Your task to perform on an android device: Open Yahoo.com Image 0: 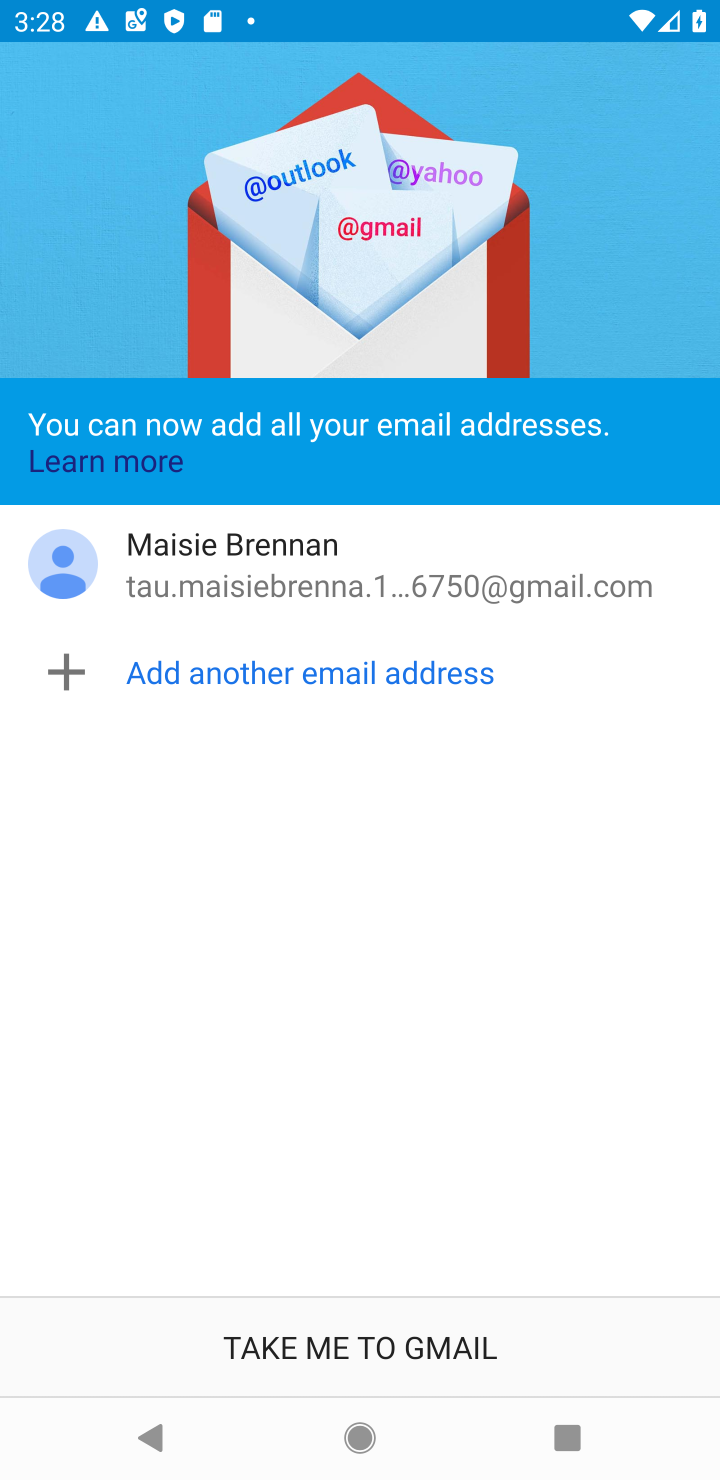
Step 0: press home button
Your task to perform on an android device: Open Yahoo.com Image 1: 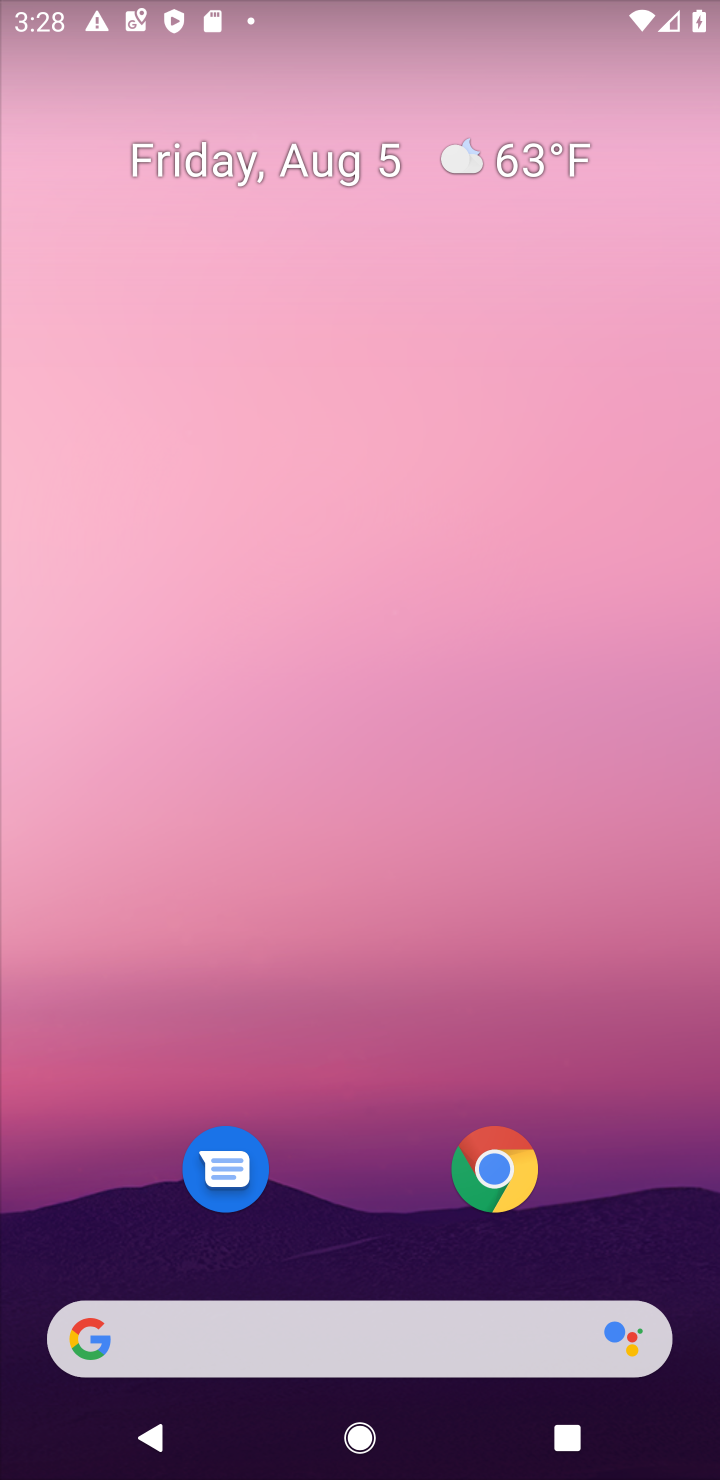
Step 1: drag from (709, 1394) to (601, 11)
Your task to perform on an android device: Open Yahoo.com Image 2: 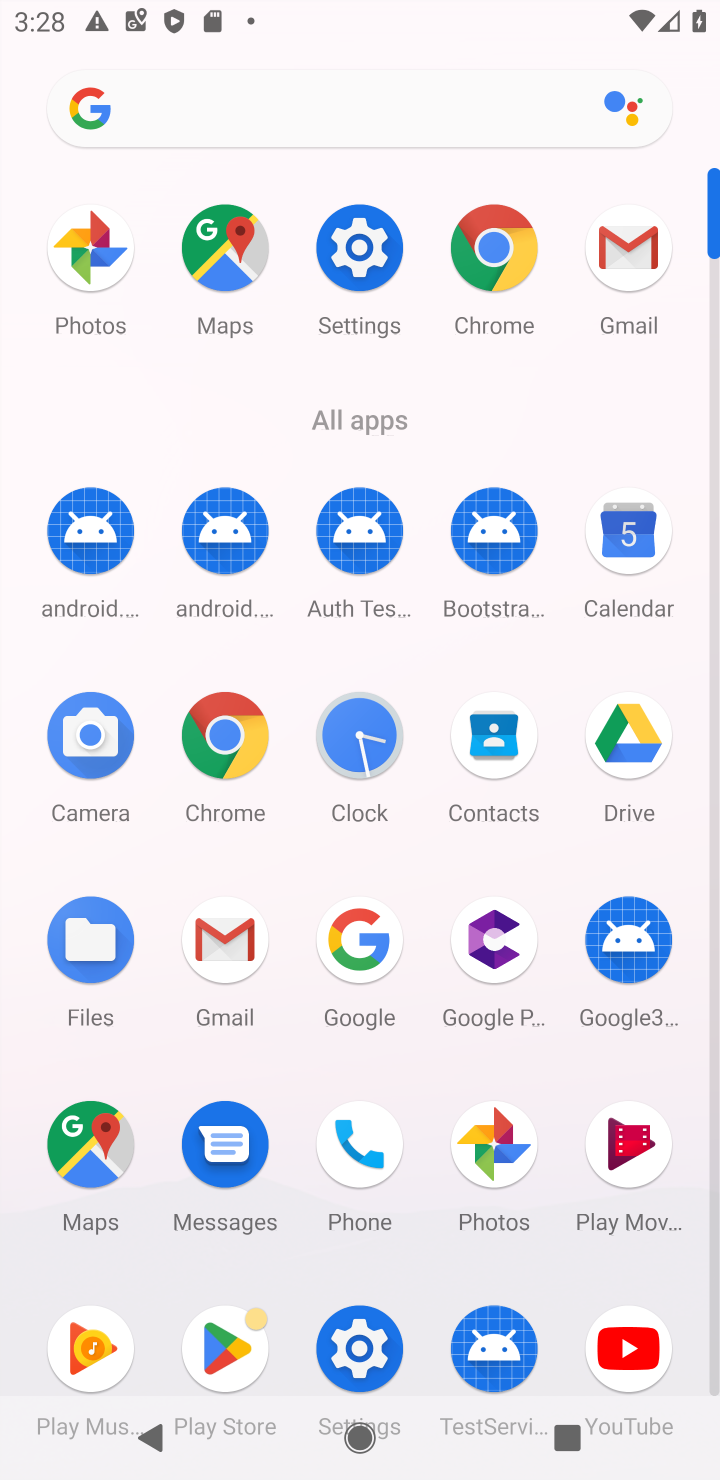
Step 2: click (493, 256)
Your task to perform on an android device: Open Yahoo.com Image 3: 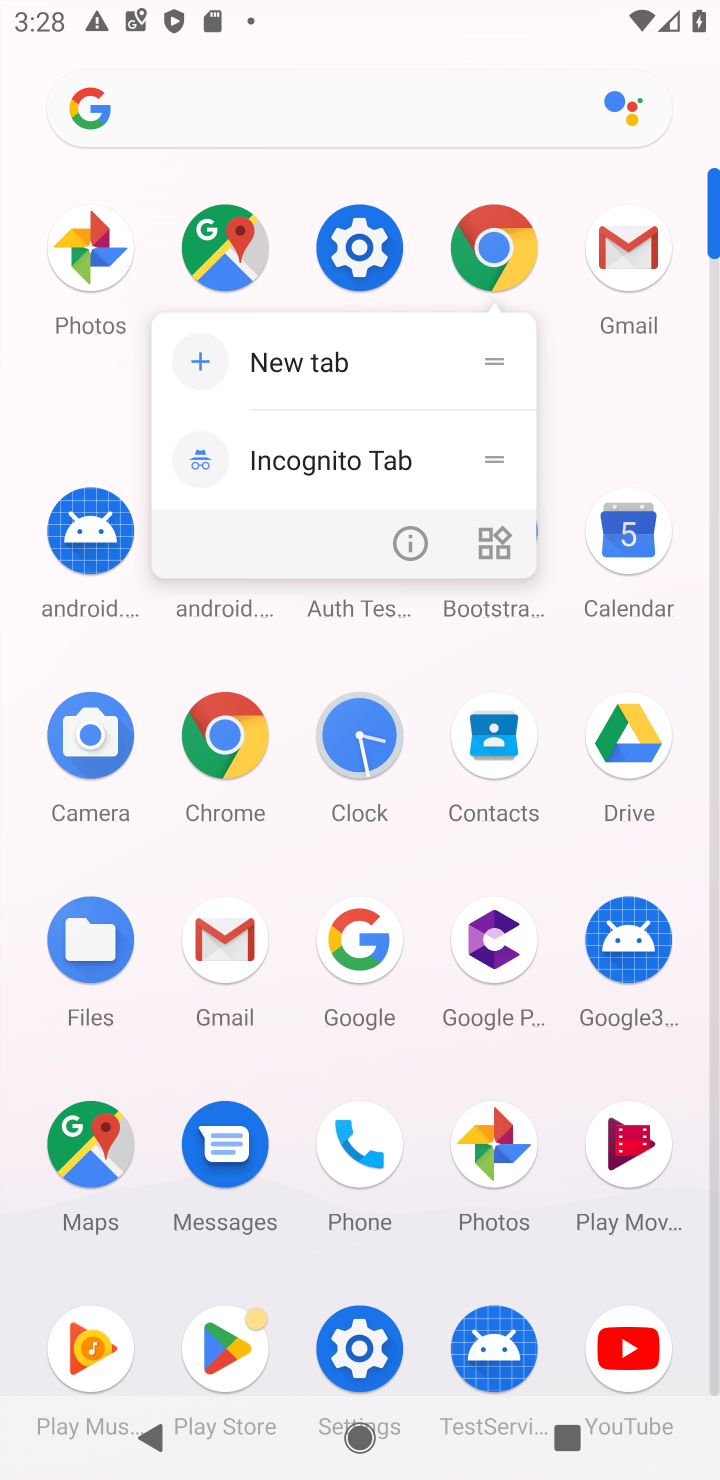
Step 3: click (493, 252)
Your task to perform on an android device: Open Yahoo.com Image 4: 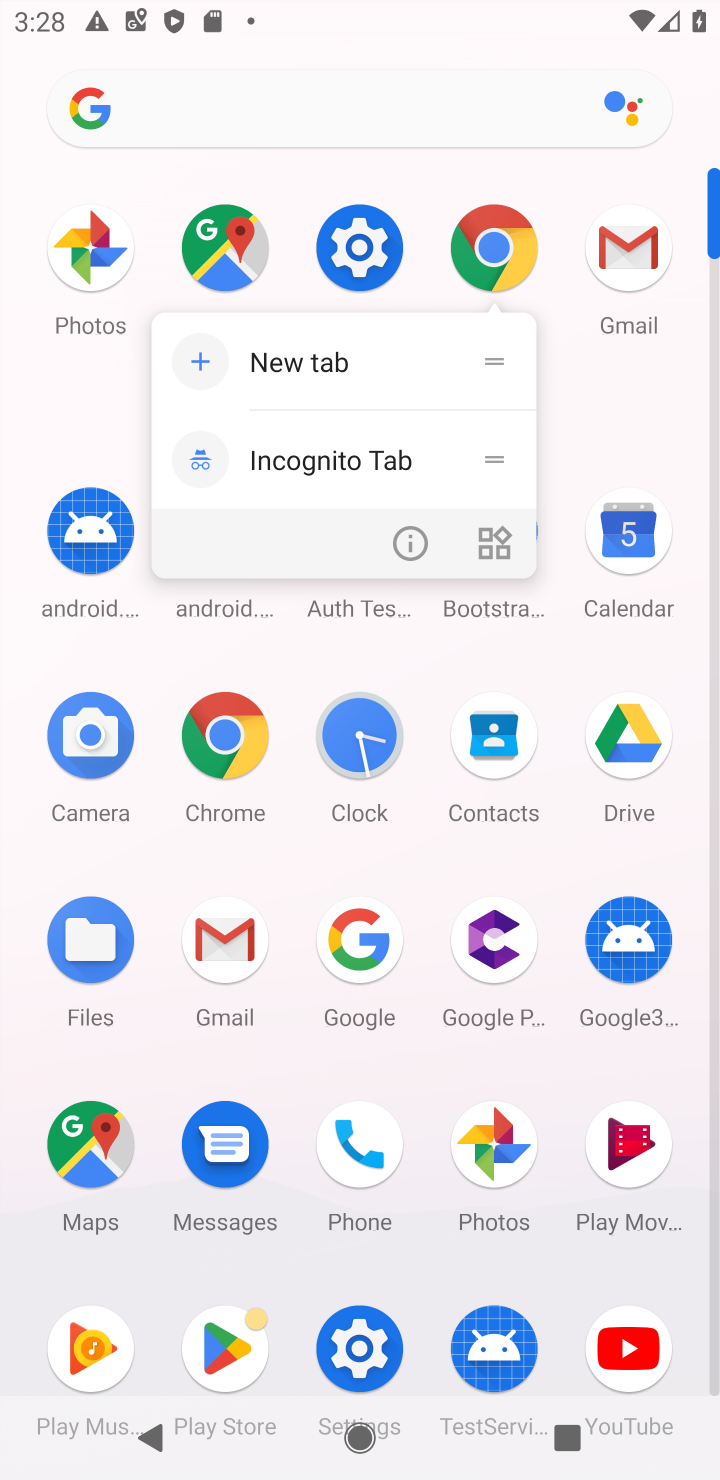
Step 4: click (495, 247)
Your task to perform on an android device: Open Yahoo.com Image 5: 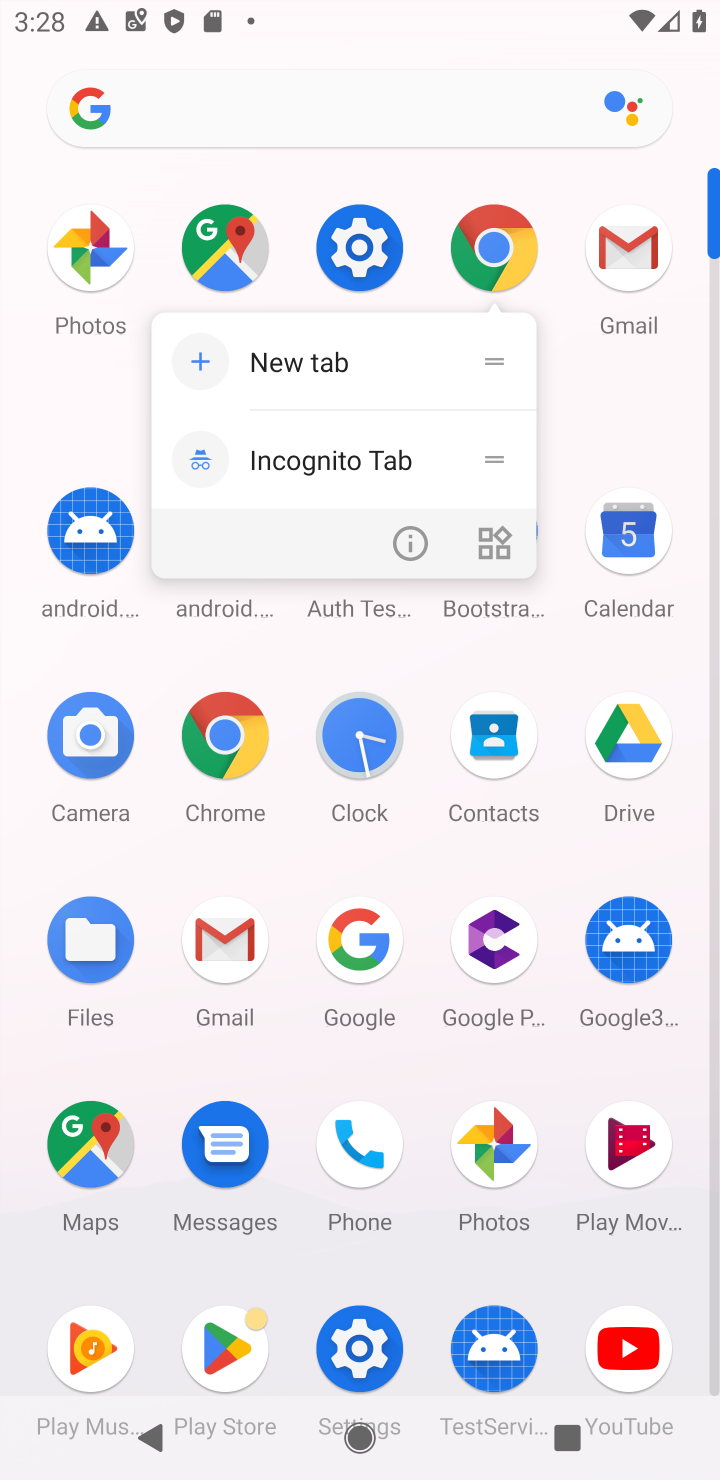
Step 5: click (495, 249)
Your task to perform on an android device: Open Yahoo.com Image 6: 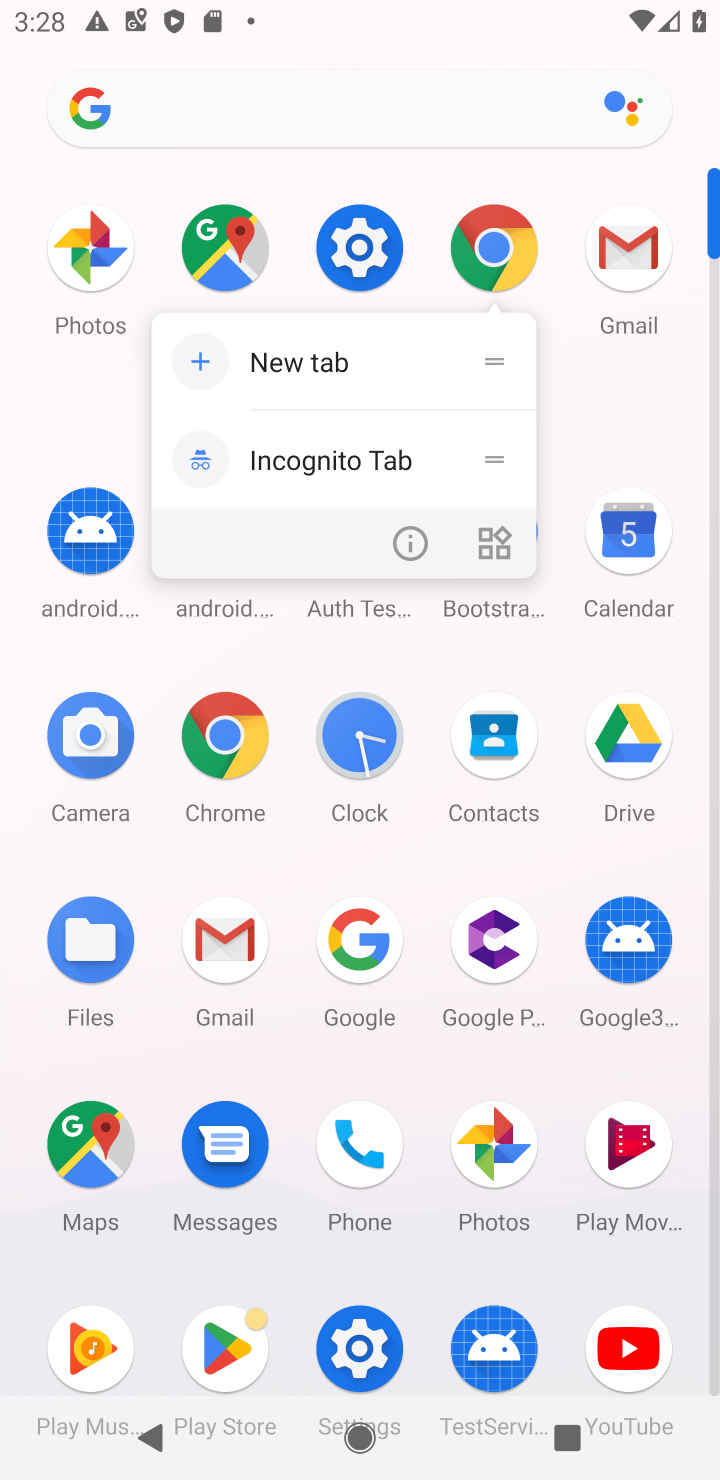
Step 6: click (489, 246)
Your task to perform on an android device: Open Yahoo.com Image 7: 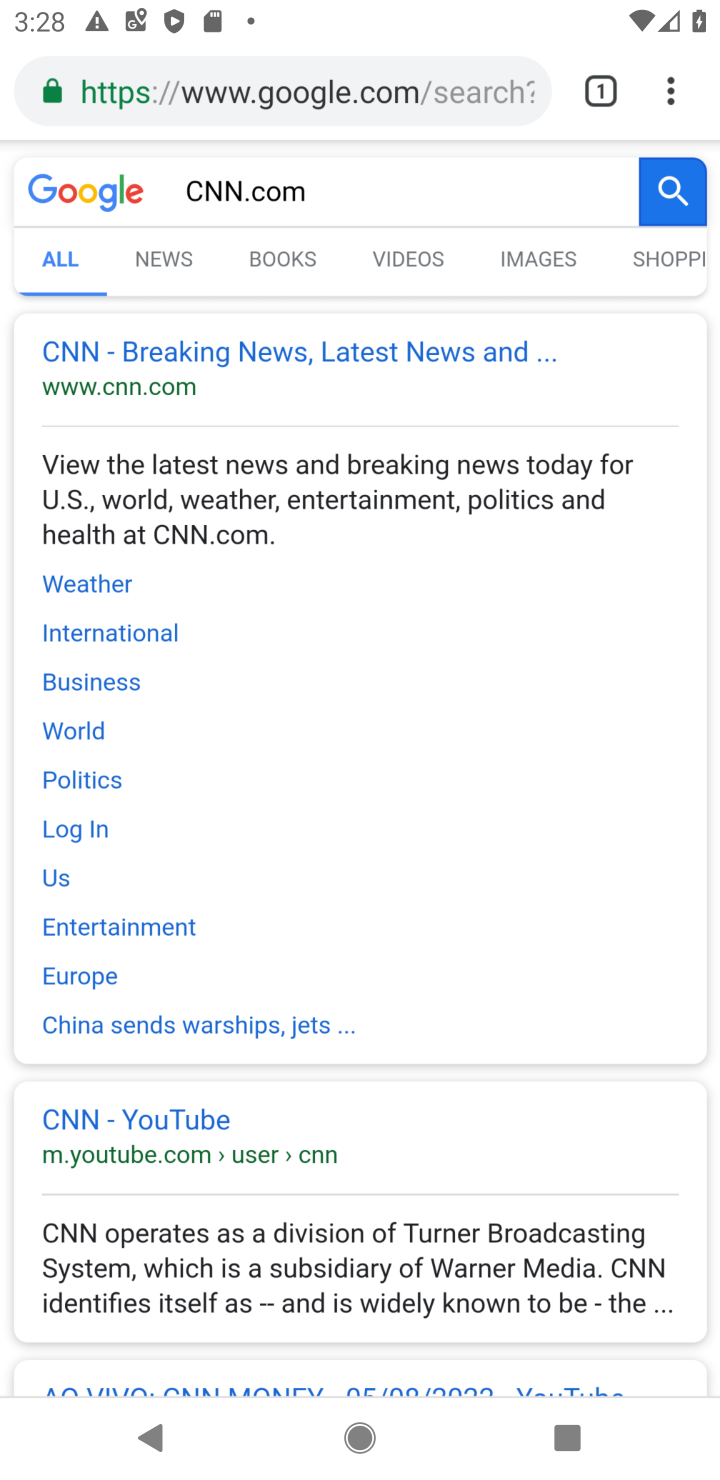
Step 7: click (502, 244)
Your task to perform on an android device: Open Yahoo.com Image 8: 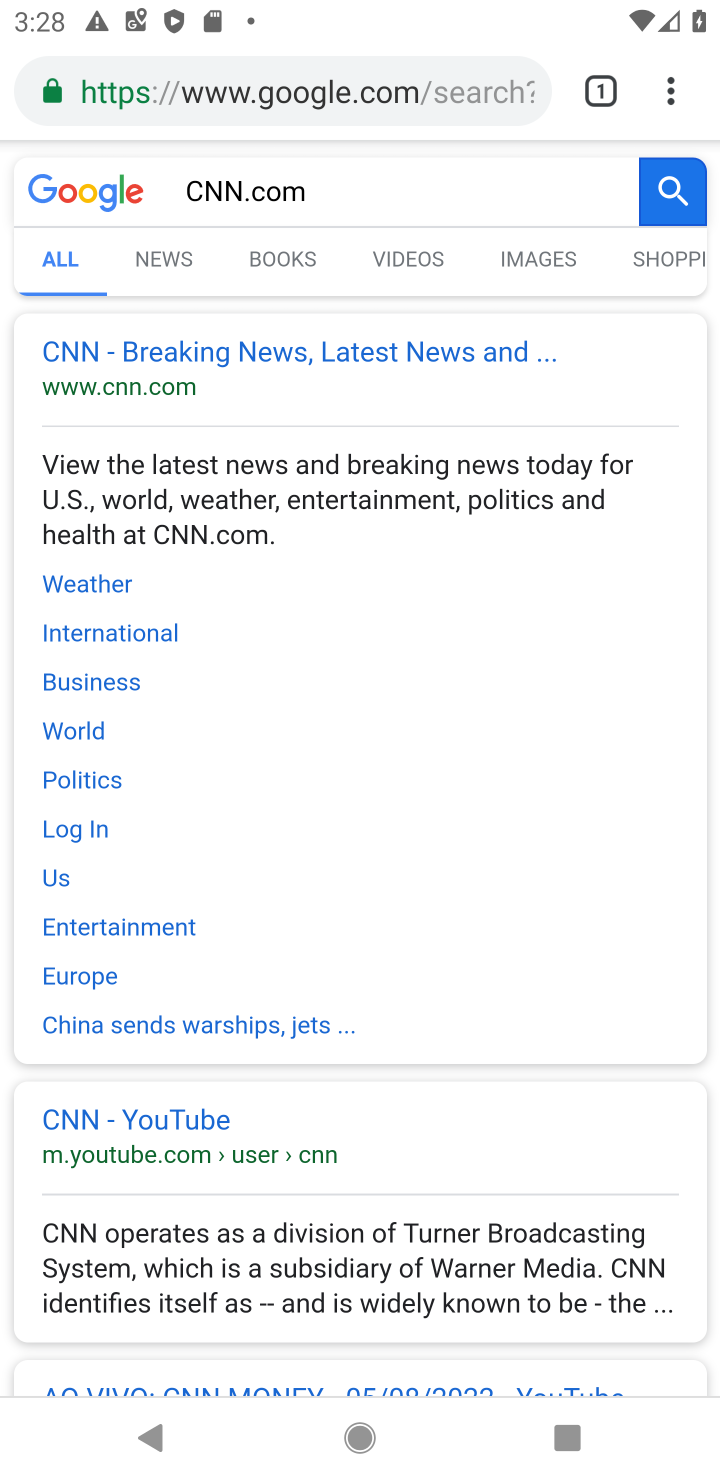
Step 8: click (417, 84)
Your task to perform on an android device: Open Yahoo.com Image 9: 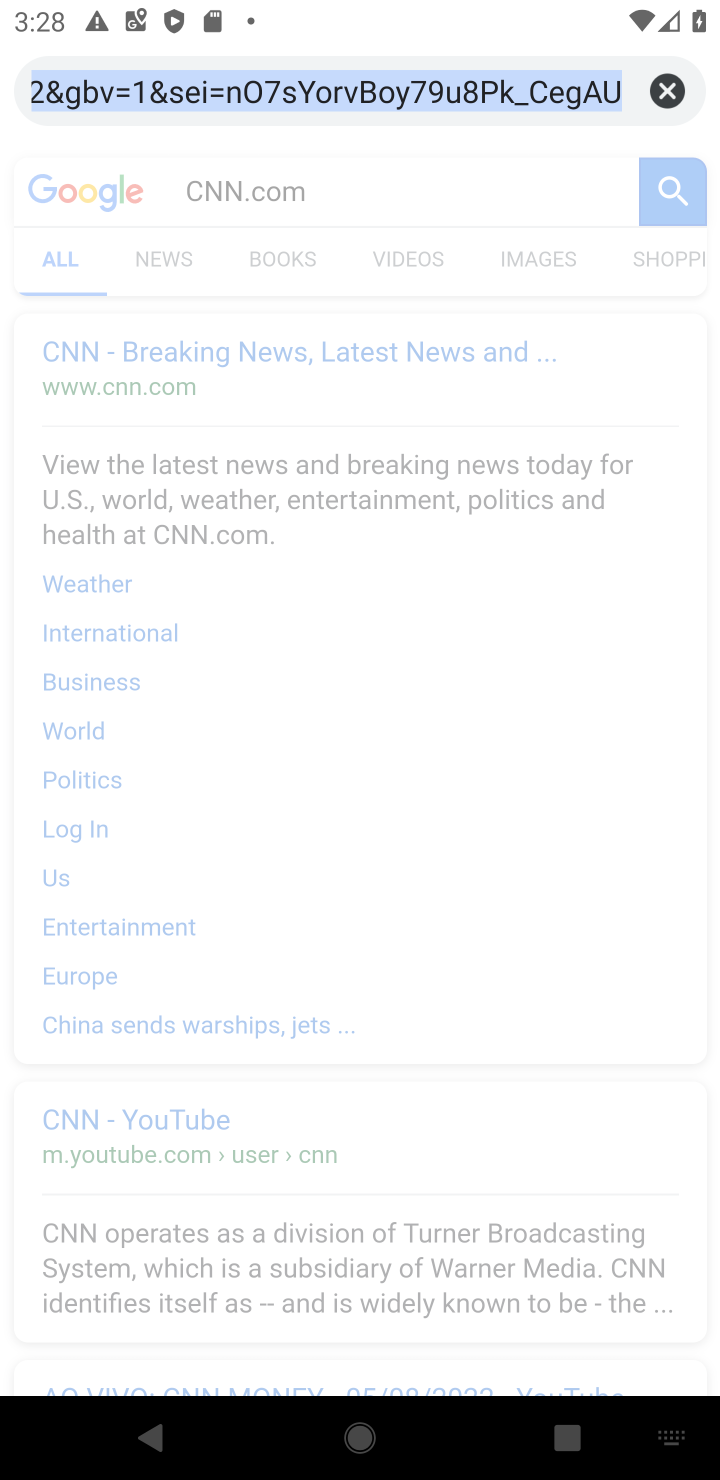
Step 9: click (651, 87)
Your task to perform on an android device: Open Yahoo.com Image 10: 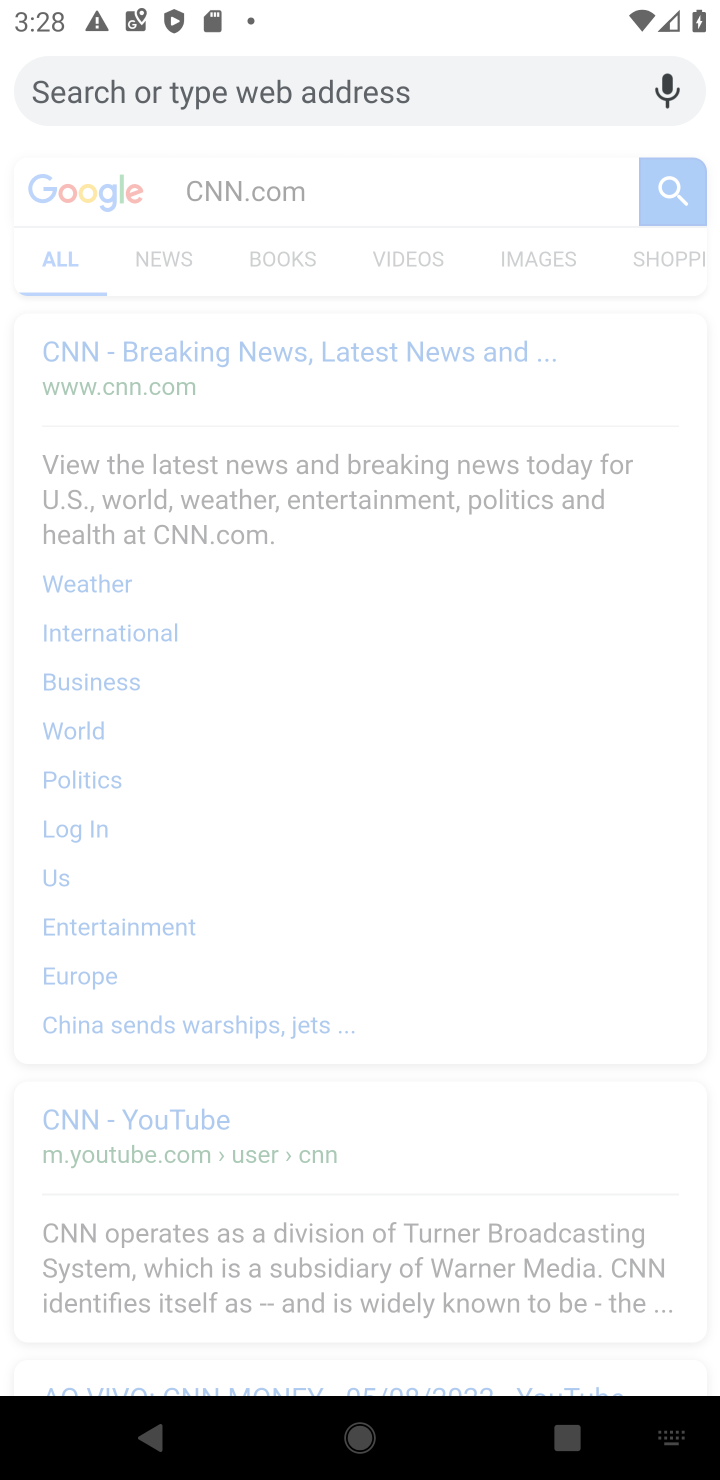
Step 10: type "Yahoo.com"
Your task to perform on an android device: Open Yahoo.com Image 11: 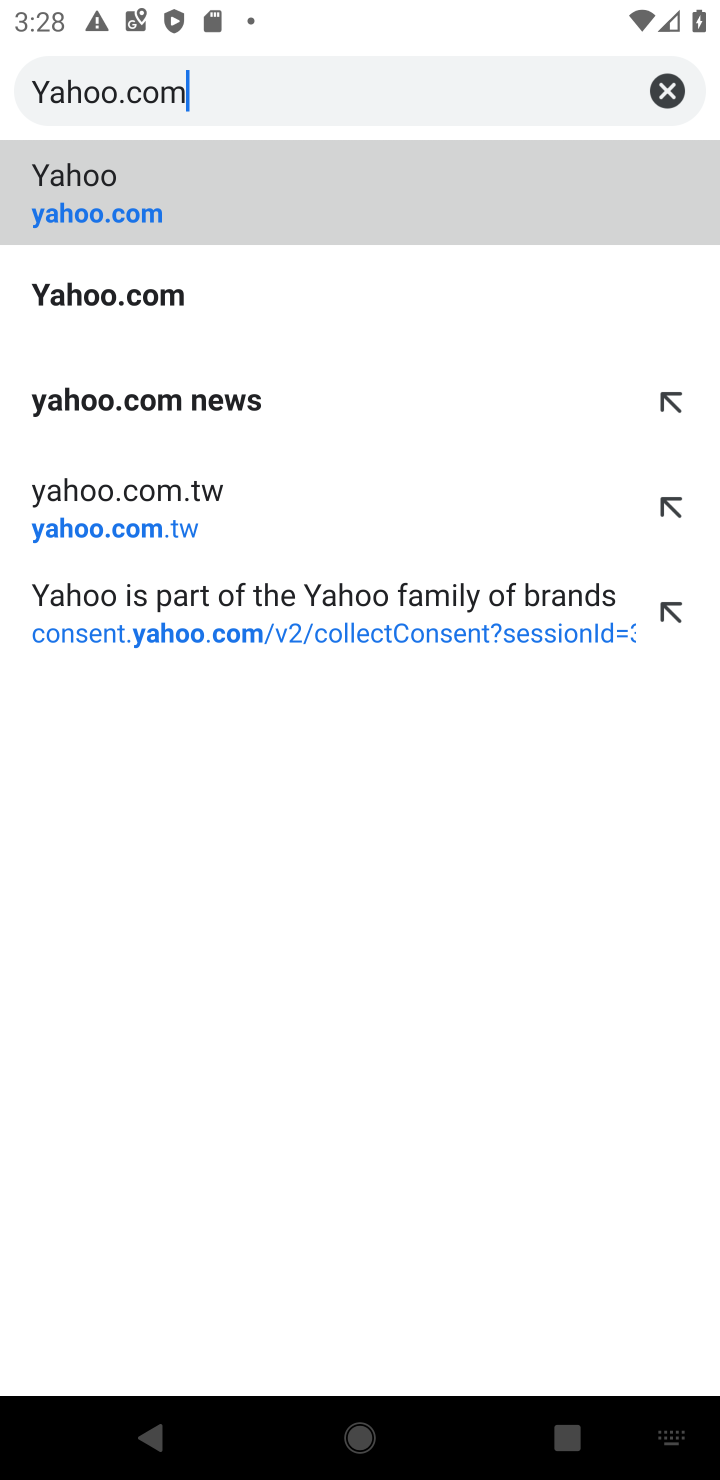
Step 11: click (145, 291)
Your task to perform on an android device: Open Yahoo.com Image 12: 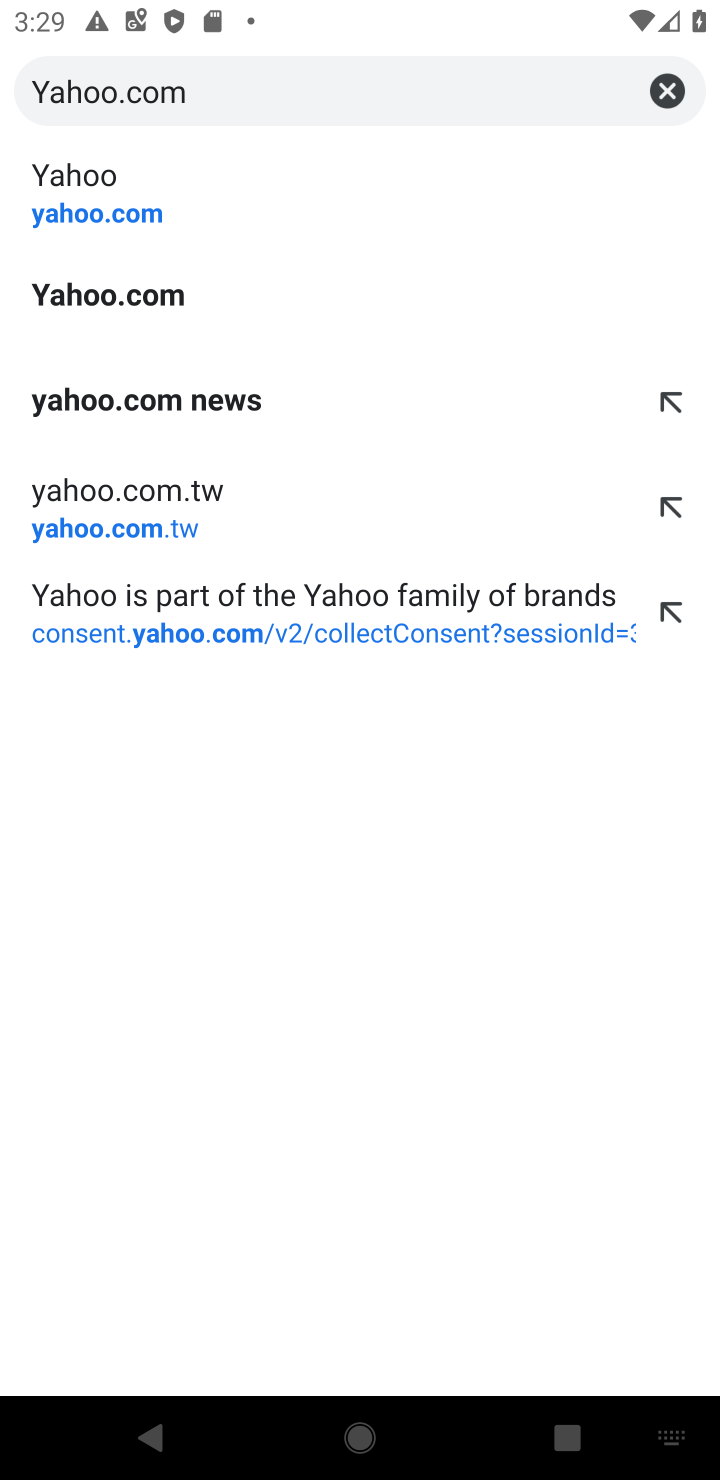
Step 12: click (126, 298)
Your task to perform on an android device: Open Yahoo.com Image 13: 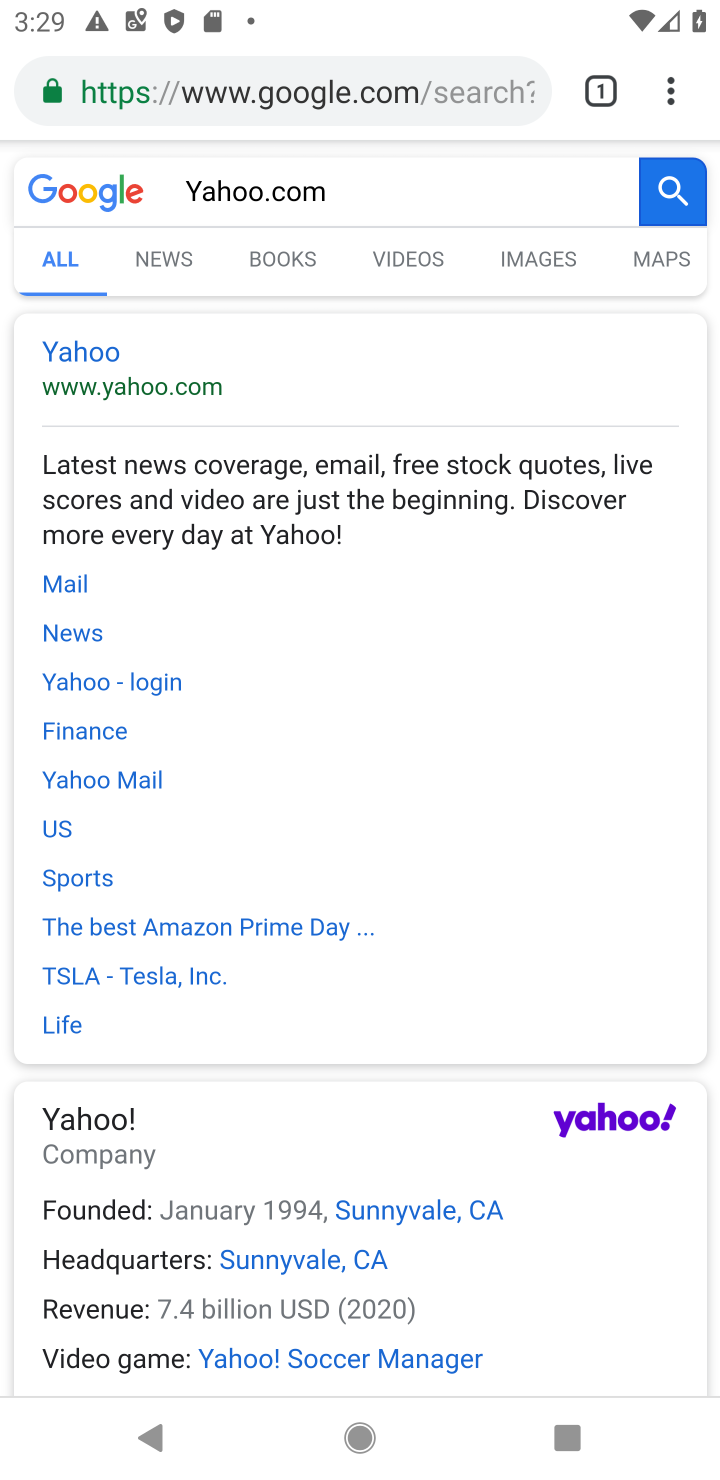
Step 13: task complete